Your task to perform on an android device: Open Google Maps Image 0: 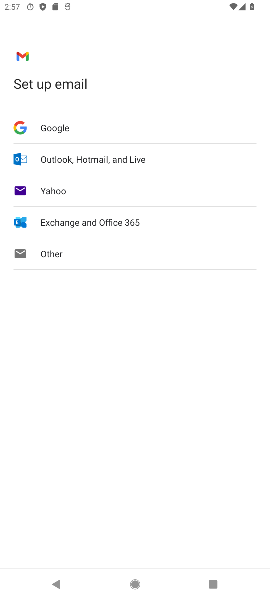
Step 0: press home button
Your task to perform on an android device: Open Google Maps Image 1: 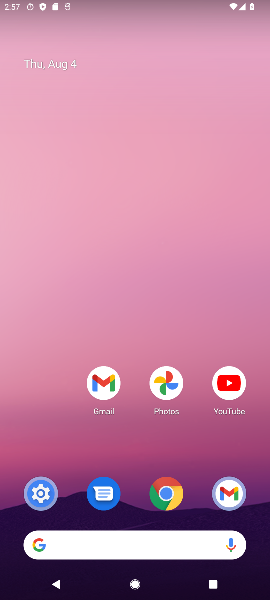
Step 1: drag from (30, 584) to (136, 147)
Your task to perform on an android device: Open Google Maps Image 2: 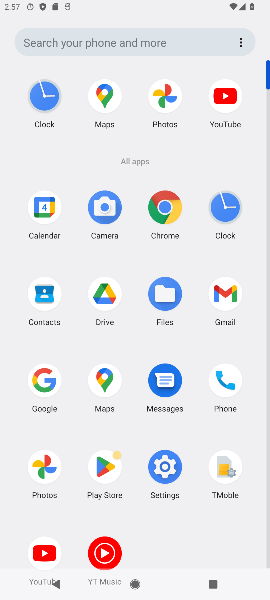
Step 2: click (99, 380)
Your task to perform on an android device: Open Google Maps Image 3: 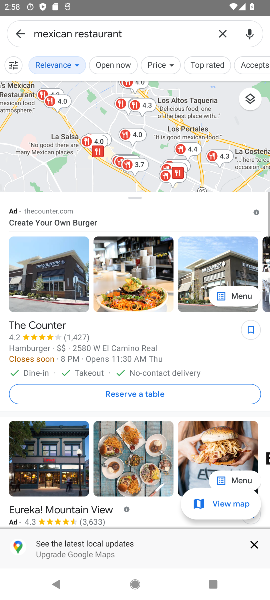
Step 3: click (21, 32)
Your task to perform on an android device: Open Google Maps Image 4: 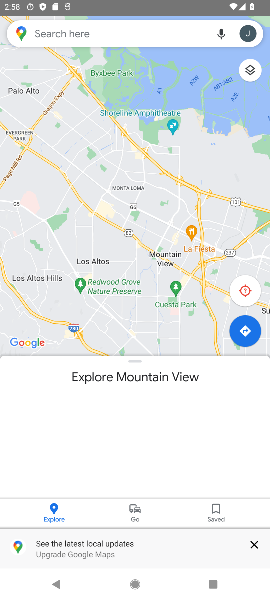
Step 4: task complete